Your task to perform on an android device: How do I get to the nearest Walmart? Image 0: 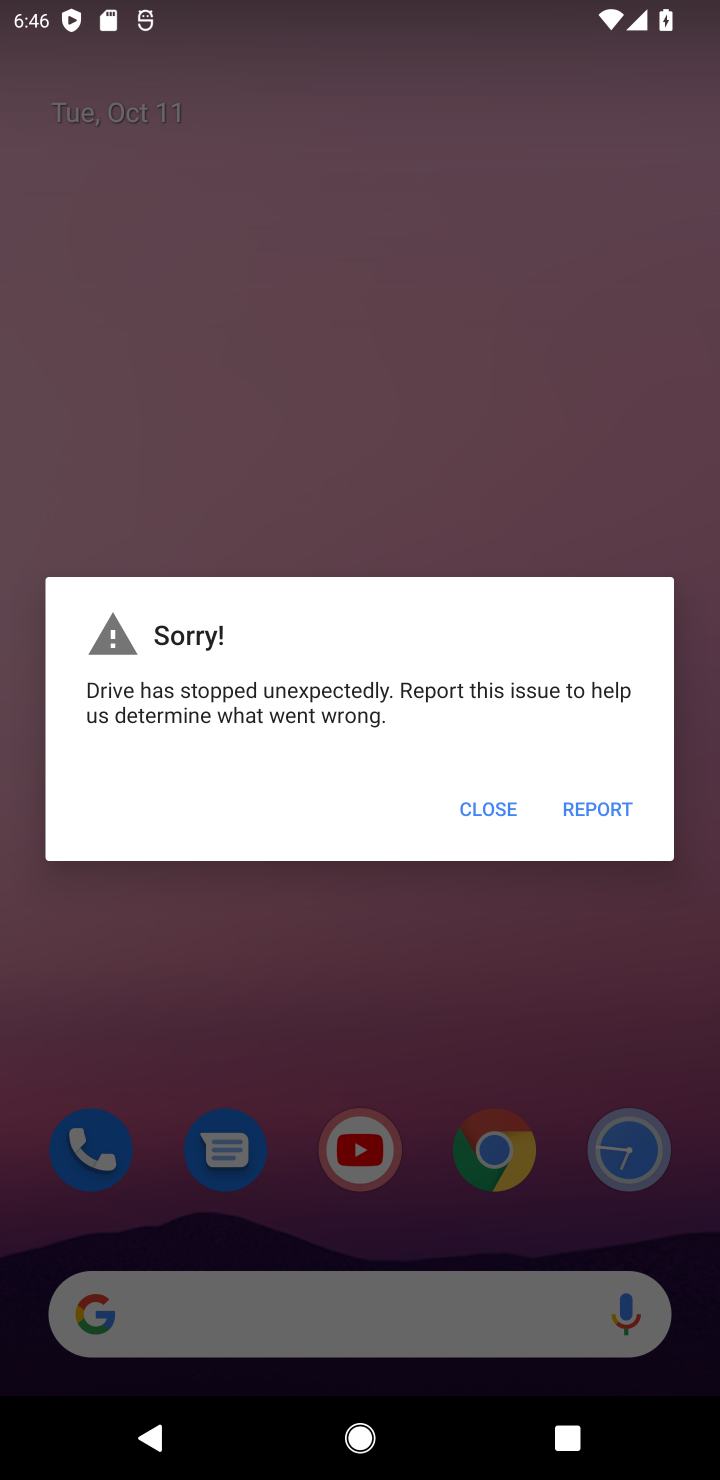
Step 0: press home button
Your task to perform on an android device: How do I get to the nearest Walmart? Image 1: 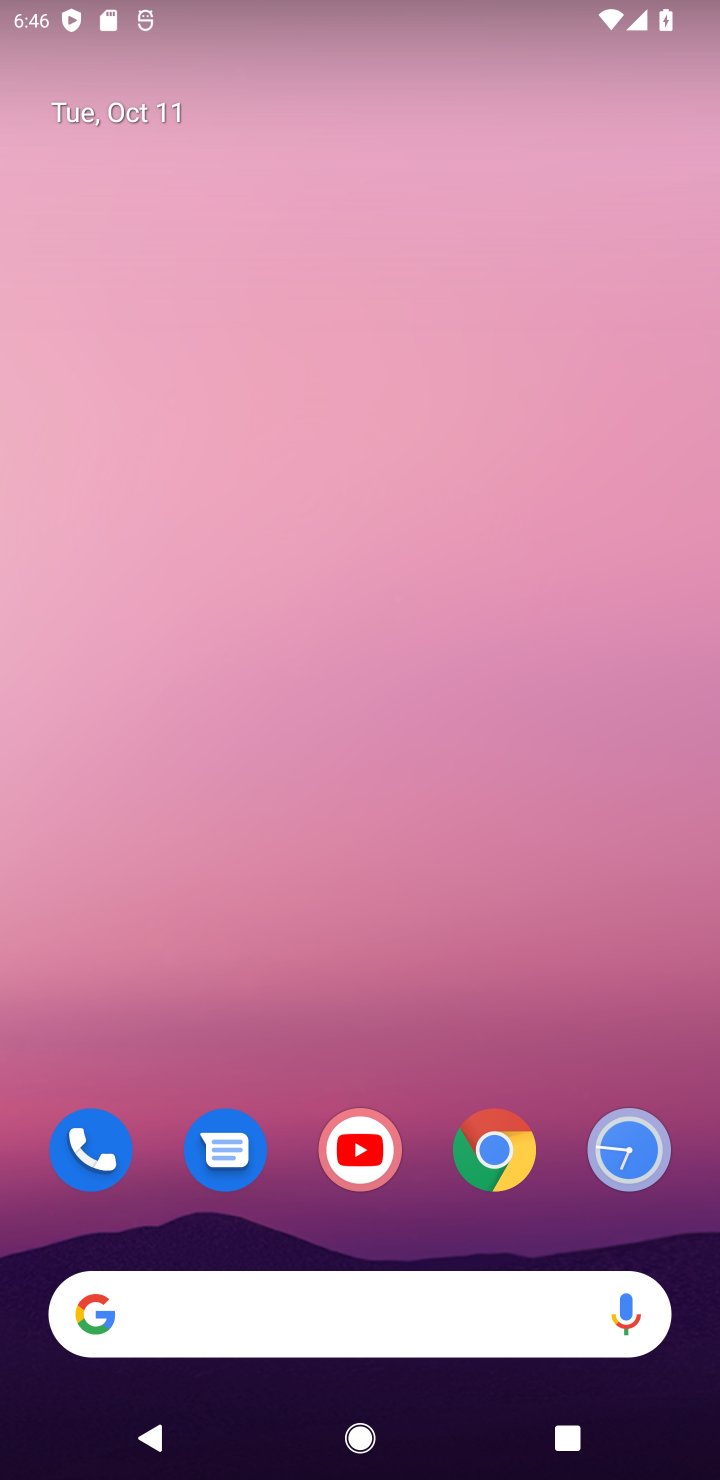
Step 1: click (499, 1147)
Your task to perform on an android device: How do I get to the nearest Walmart? Image 2: 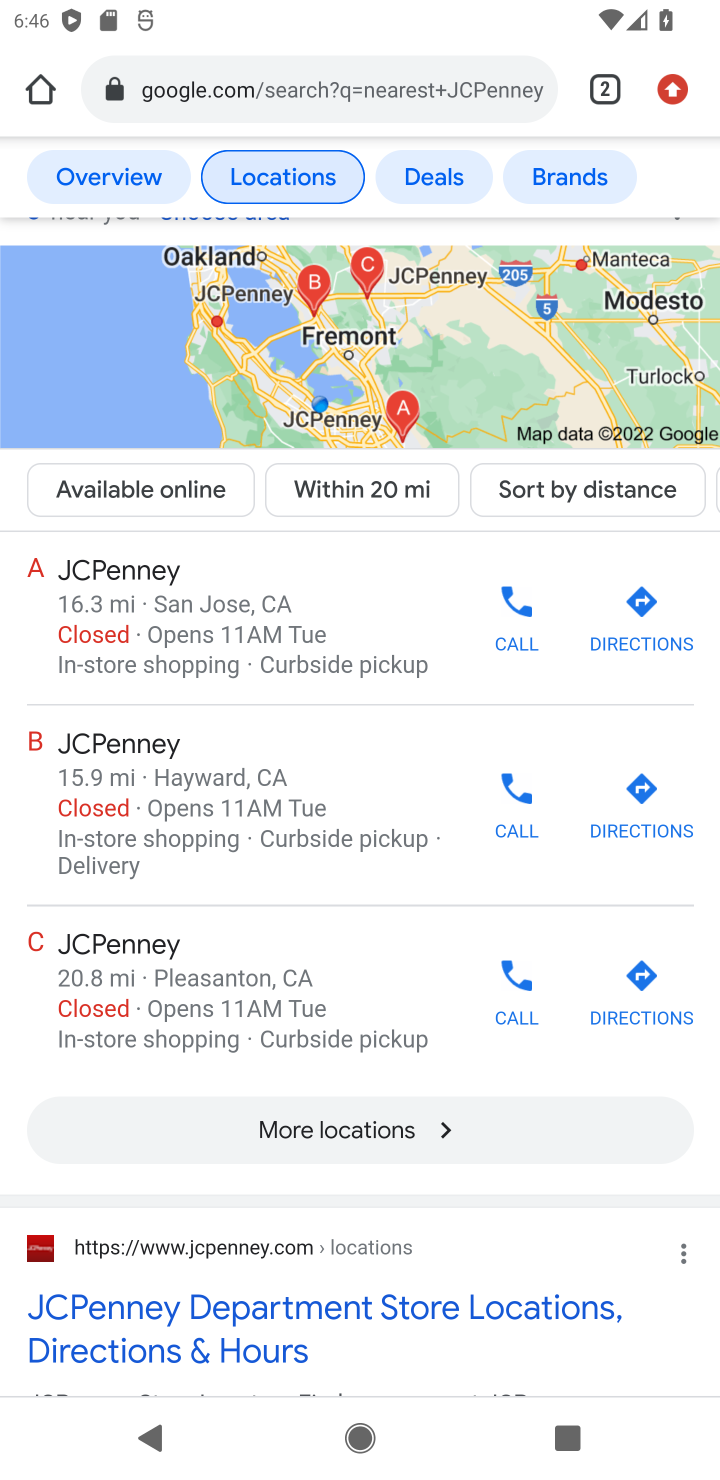
Step 2: click (199, 89)
Your task to perform on an android device: How do I get to the nearest Walmart? Image 3: 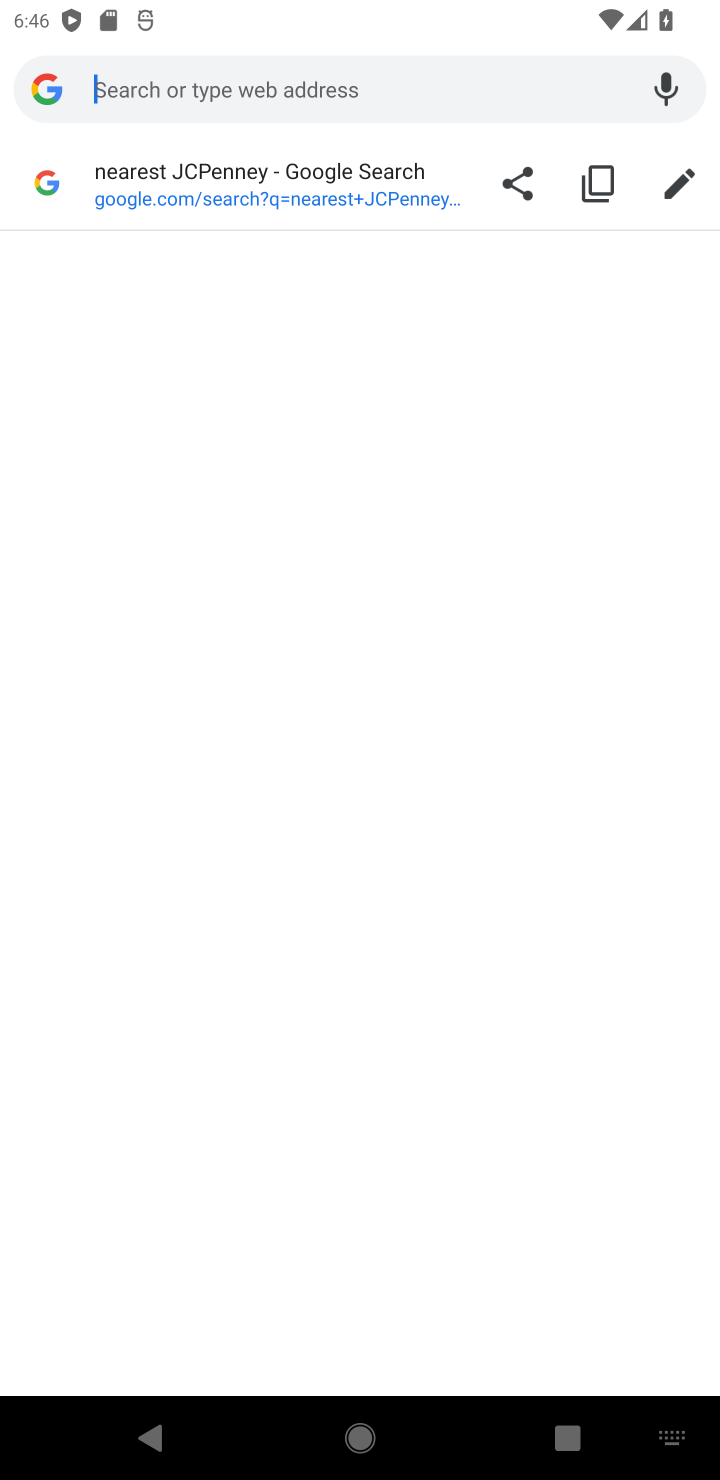
Step 3: type "nearest Walmart"
Your task to perform on an android device: How do I get to the nearest Walmart? Image 4: 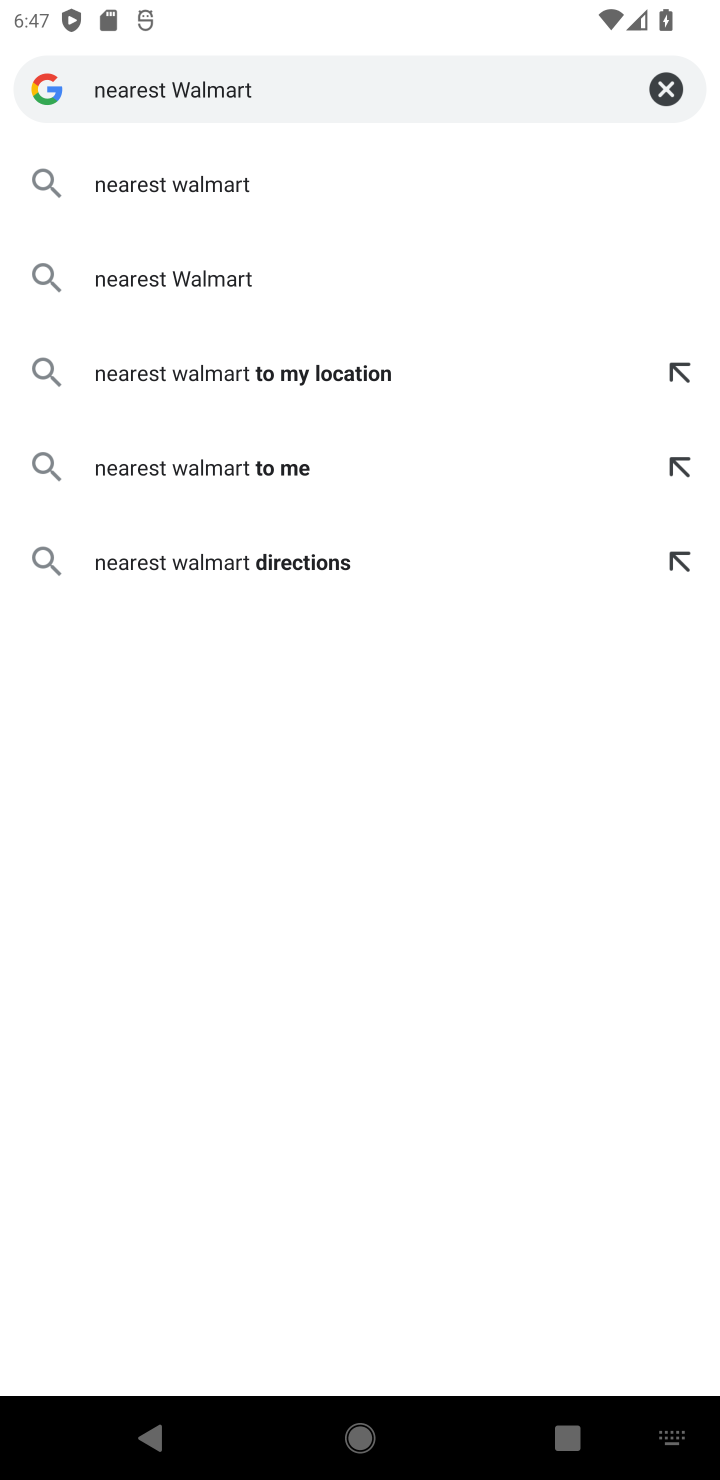
Step 4: click (123, 187)
Your task to perform on an android device: How do I get to the nearest Walmart? Image 5: 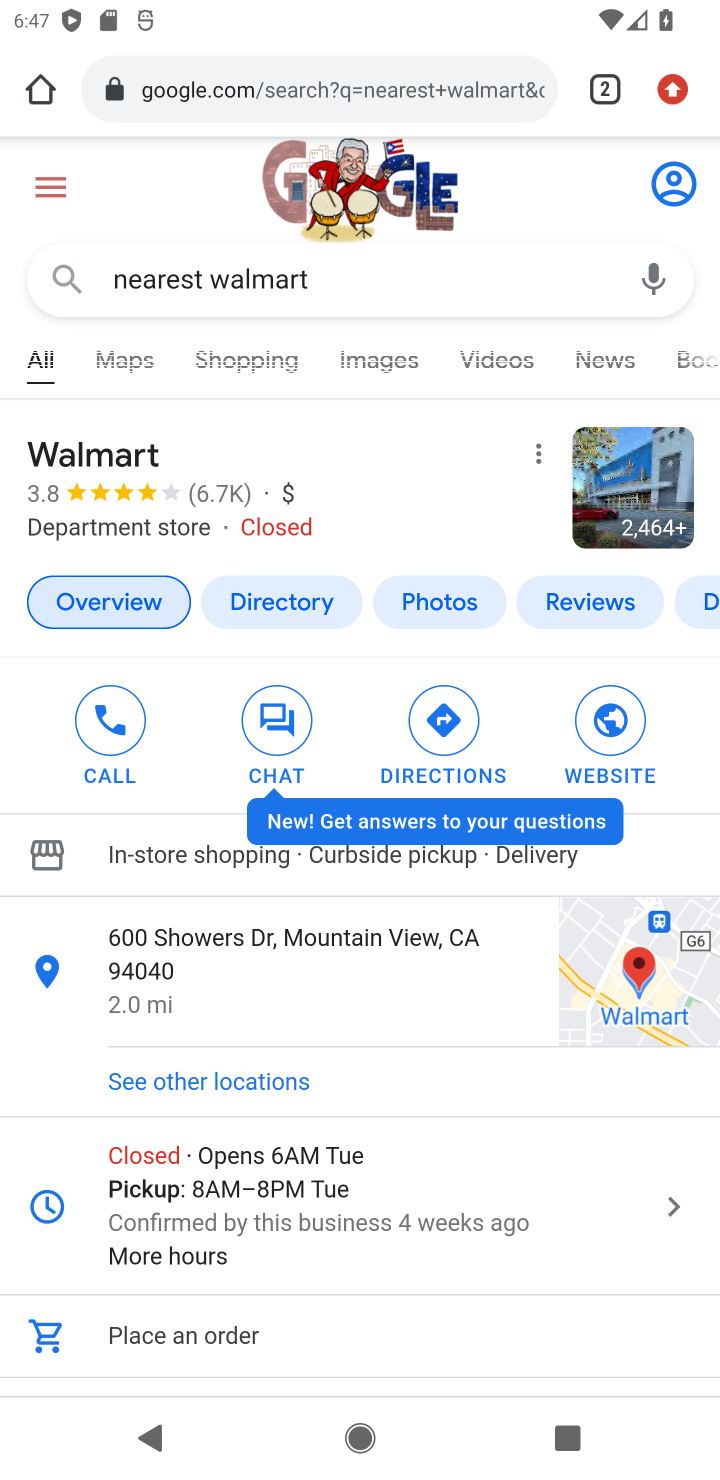
Step 5: task complete